Your task to perform on an android device: Search for sushi restaurants on Maps Image 0: 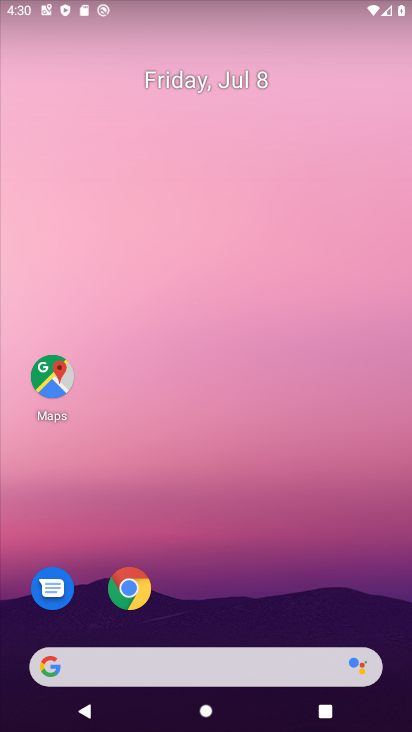
Step 0: drag from (227, 599) to (245, 5)
Your task to perform on an android device: Search for sushi restaurants on Maps Image 1: 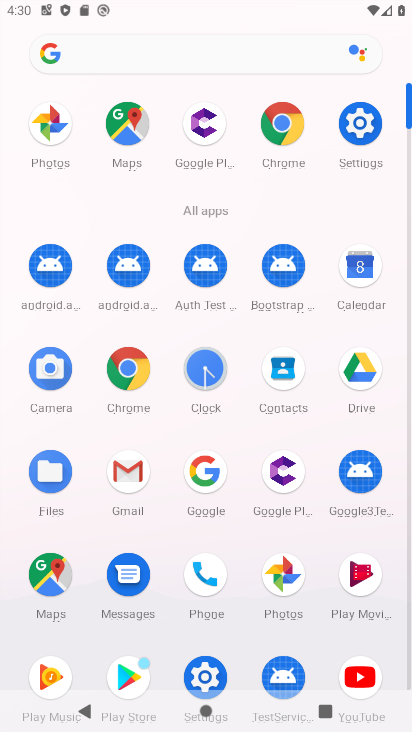
Step 1: click (42, 586)
Your task to perform on an android device: Search for sushi restaurants on Maps Image 2: 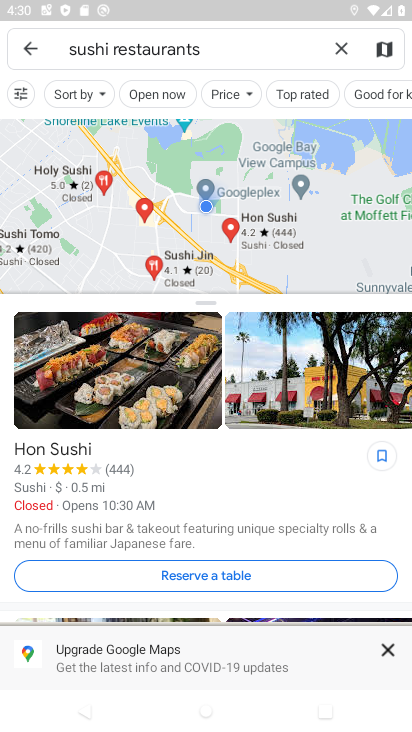
Step 2: task complete